Your task to perform on an android device: What is the news today? Image 0: 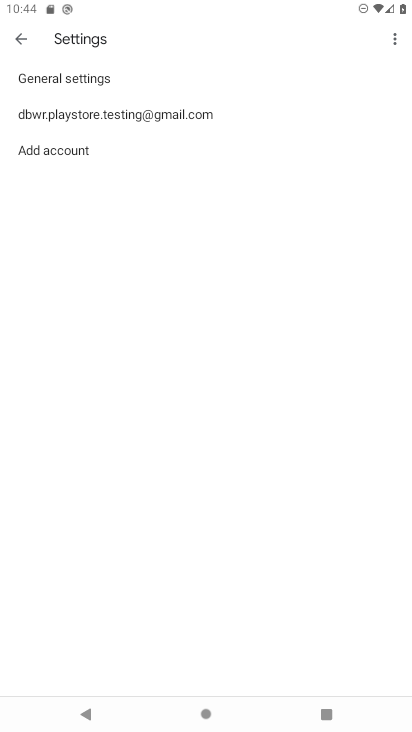
Step 0: press home button
Your task to perform on an android device: What is the news today? Image 1: 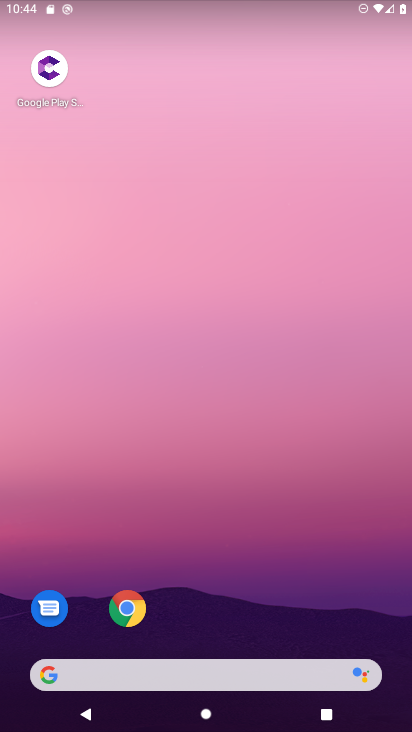
Step 1: drag from (295, 638) to (275, 116)
Your task to perform on an android device: What is the news today? Image 2: 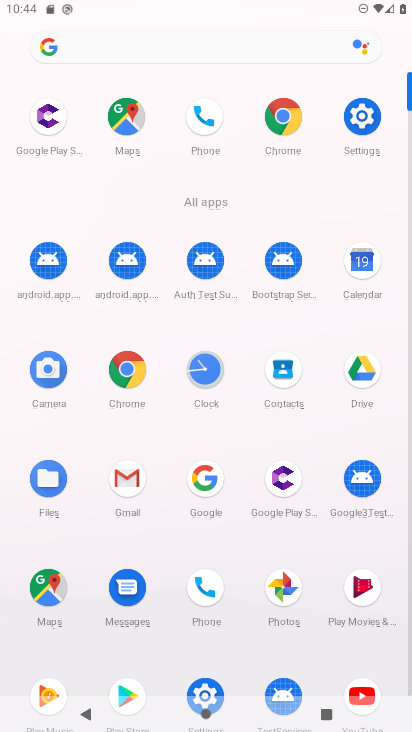
Step 2: click (269, 124)
Your task to perform on an android device: What is the news today? Image 3: 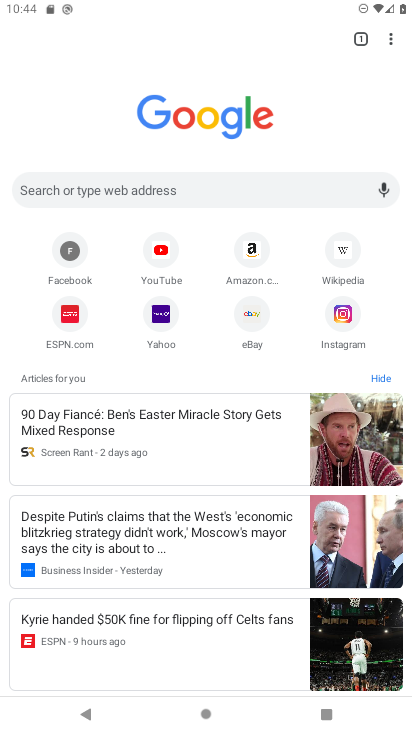
Step 3: task complete